Your task to perform on an android device: What's on my calendar tomorrow? Image 0: 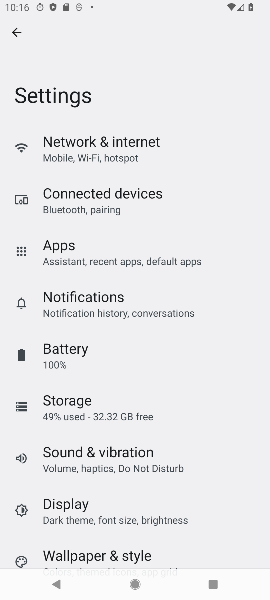
Step 0: press home button
Your task to perform on an android device: What's on my calendar tomorrow? Image 1: 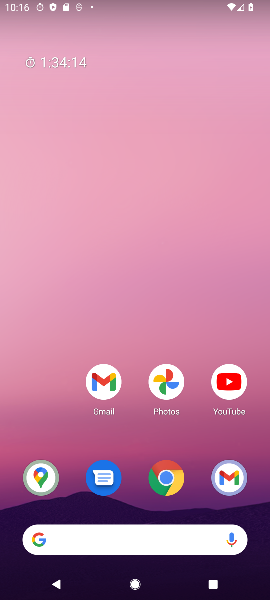
Step 1: drag from (170, 283) to (171, 23)
Your task to perform on an android device: What's on my calendar tomorrow? Image 2: 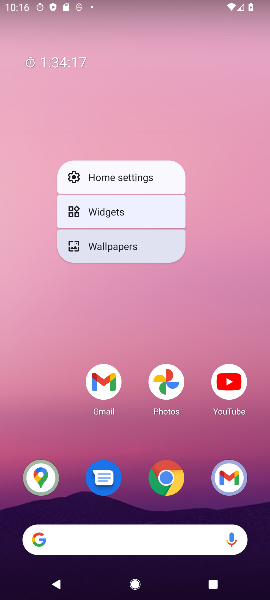
Step 2: drag from (99, 448) to (130, 77)
Your task to perform on an android device: What's on my calendar tomorrow? Image 3: 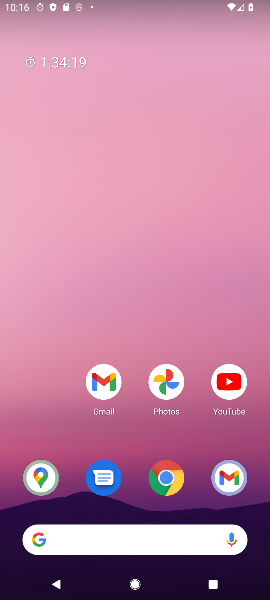
Step 3: drag from (70, 466) to (127, 133)
Your task to perform on an android device: What's on my calendar tomorrow? Image 4: 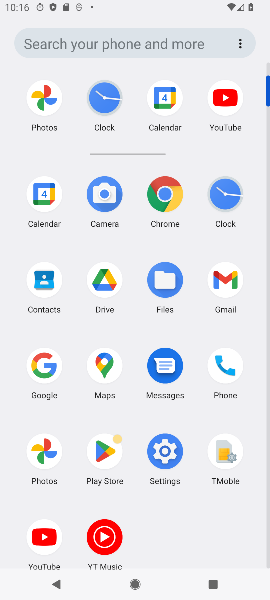
Step 4: click (38, 196)
Your task to perform on an android device: What's on my calendar tomorrow? Image 5: 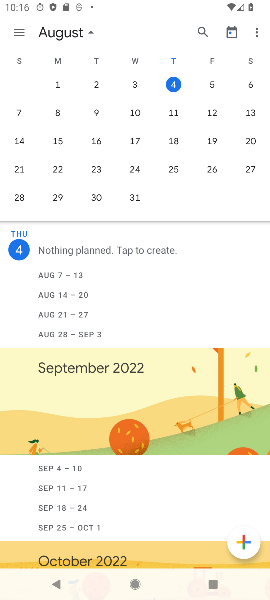
Step 5: click (214, 81)
Your task to perform on an android device: What's on my calendar tomorrow? Image 6: 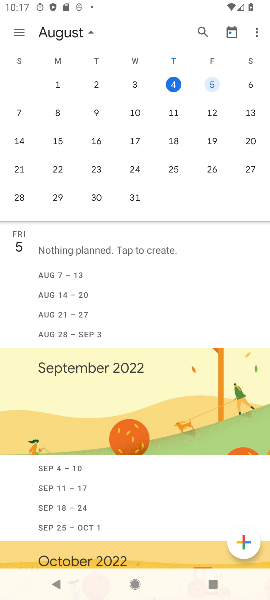
Step 6: task complete